Your task to perform on an android device: turn on wifi Image 0: 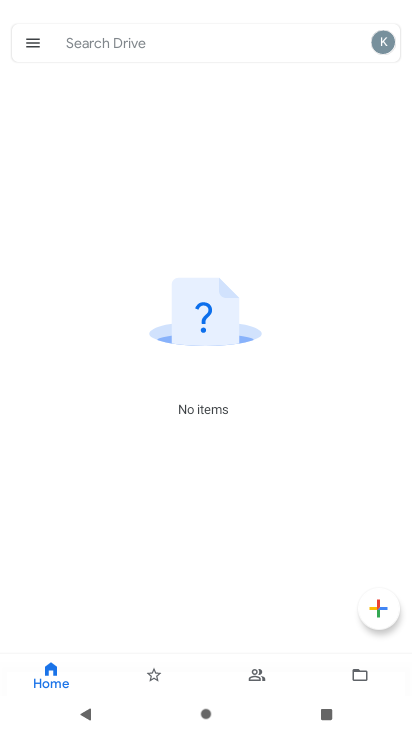
Step 0: press home button
Your task to perform on an android device: turn on wifi Image 1: 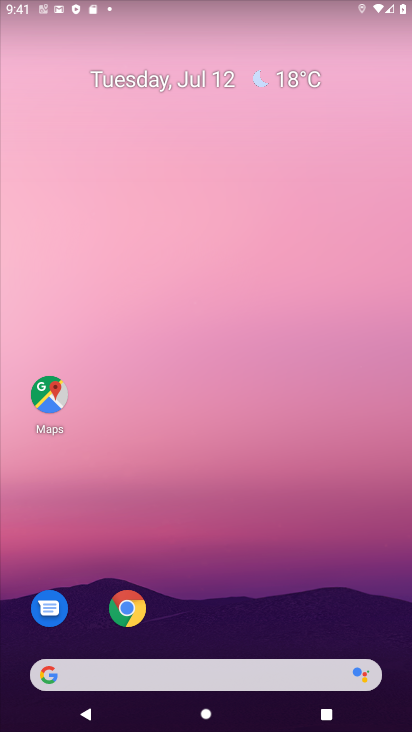
Step 1: drag from (218, 531) to (158, 218)
Your task to perform on an android device: turn on wifi Image 2: 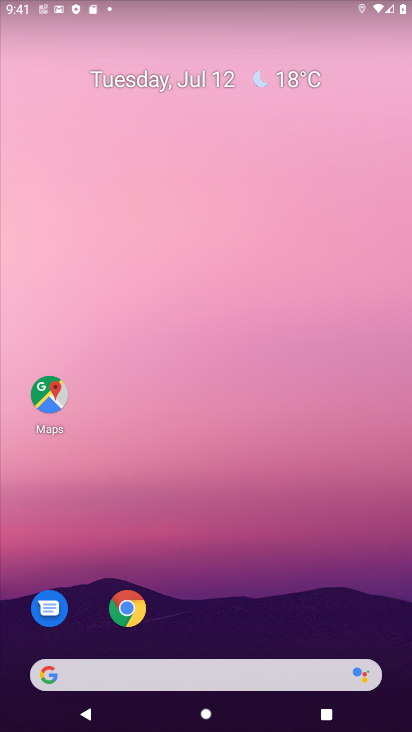
Step 2: drag from (230, 624) to (179, 194)
Your task to perform on an android device: turn on wifi Image 3: 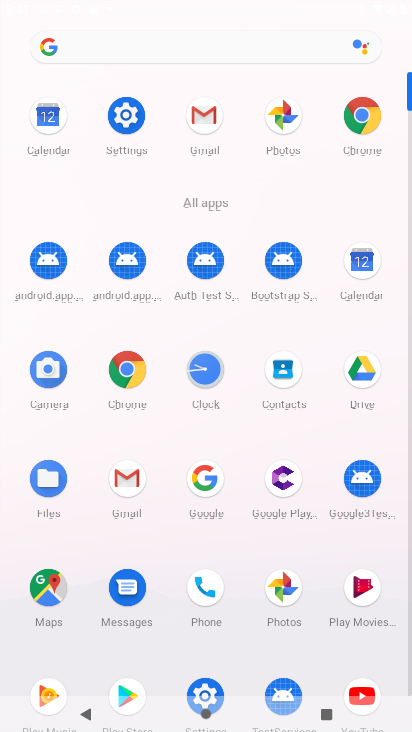
Step 3: click (129, 114)
Your task to perform on an android device: turn on wifi Image 4: 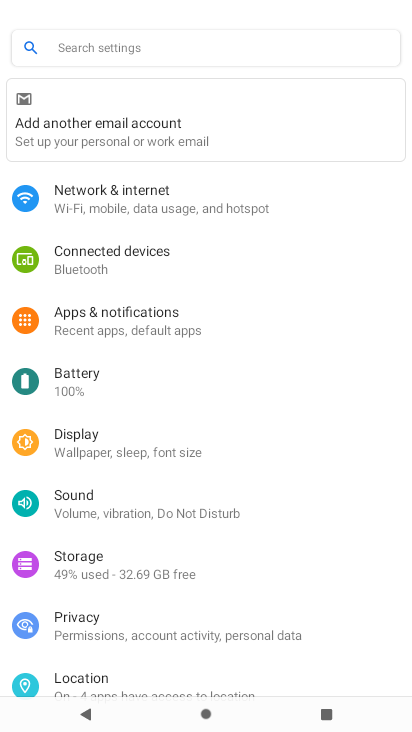
Step 4: click (111, 191)
Your task to perform on an android device: turn on wifi Image 5: 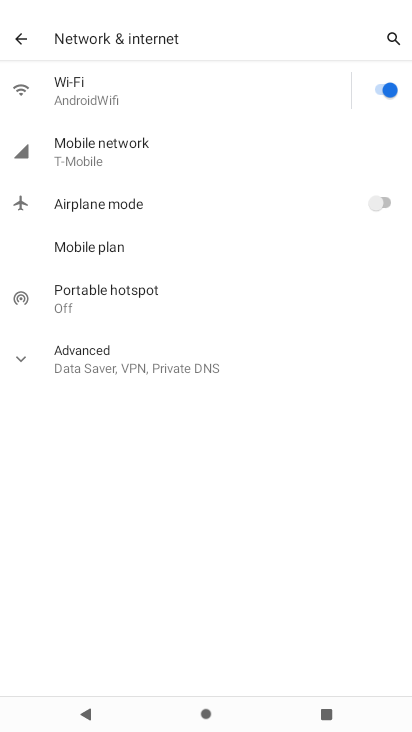
Step 5: task complete